Your task to perform on an android device: Go to network settings Image 0: 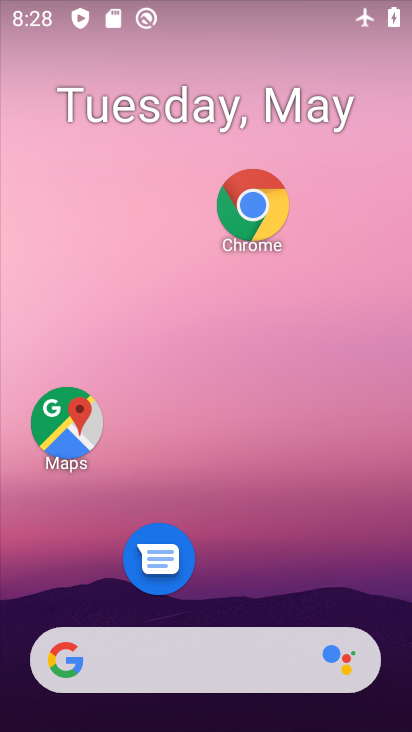
Step 0: drag from (244, 591) to (244, 179)
Your task to perform on an android device: Go to network settings Image 1: 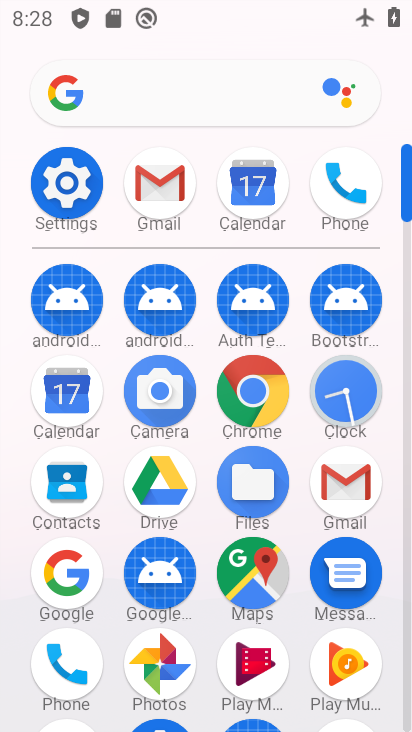
Step 1: click (51, 195)
Your task to perform on an android device: Go to network settings Image 2: 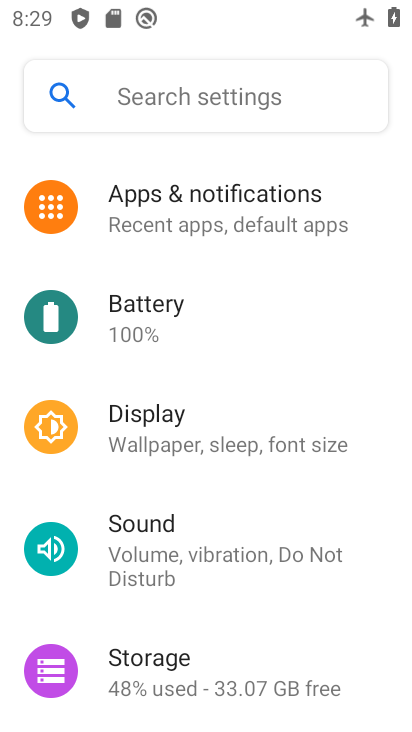
Step 2: drag from (240, 292) to (241, 518)
Your task to perform on an android device: Go to network settings Image 3: 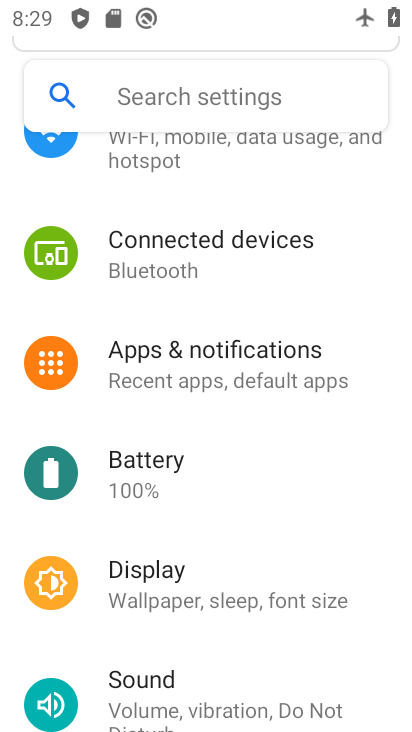
Step 3: drag from (262, 189) to (266, 387)
Your task to perform on an android device: Go to network settings Image 4: 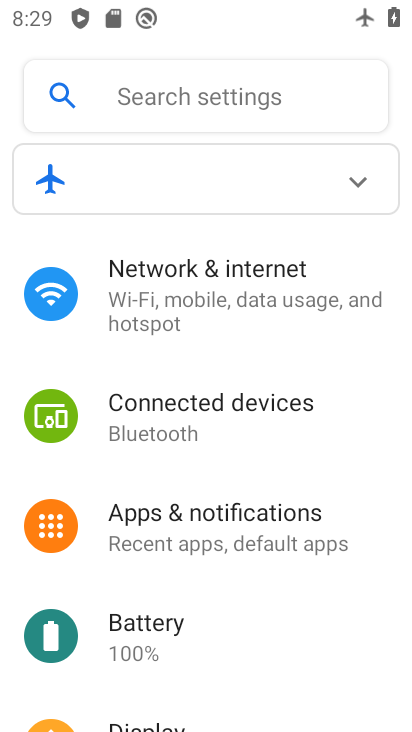
Step 4: click (211, 284)
Your task to perform on an android device: Go to network settings Image 5: 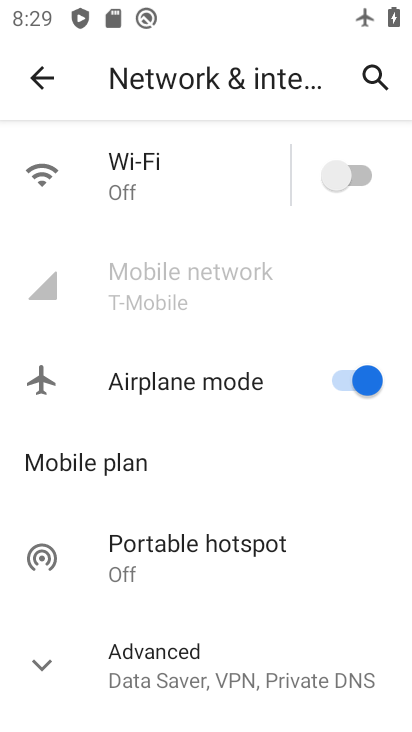
Step 5: click (211, 284)
Your task to perform on an android device: Go to network settings Image 6: 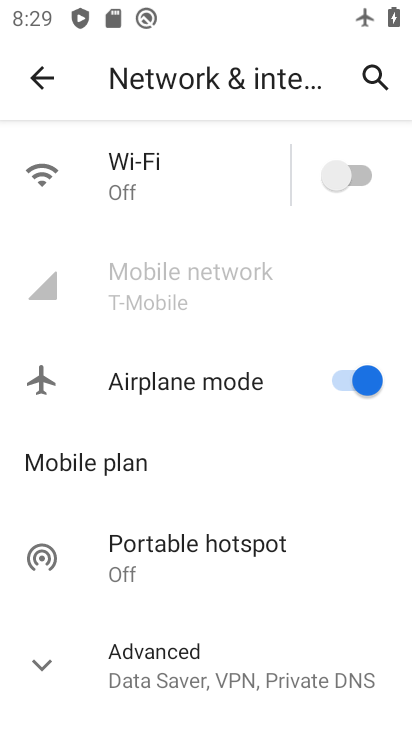
Step 6: task complete